Your task to perform on an android device: Turn on the flashlight Image 0: 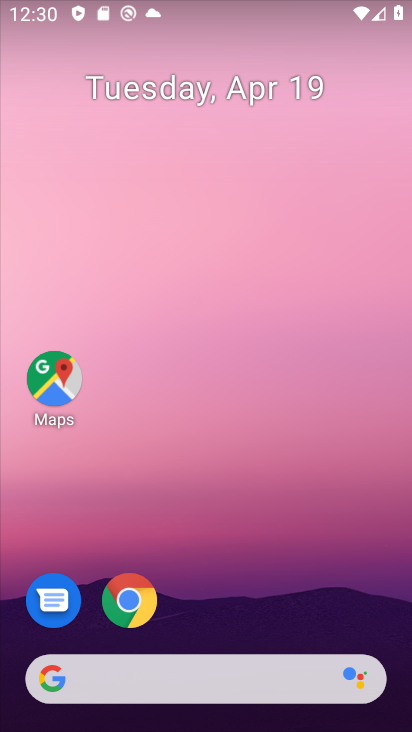
Step 0: drag from (221, 639) to (217, 44)
Your task to perform on an android device: Turn on the flashlight Image 1: 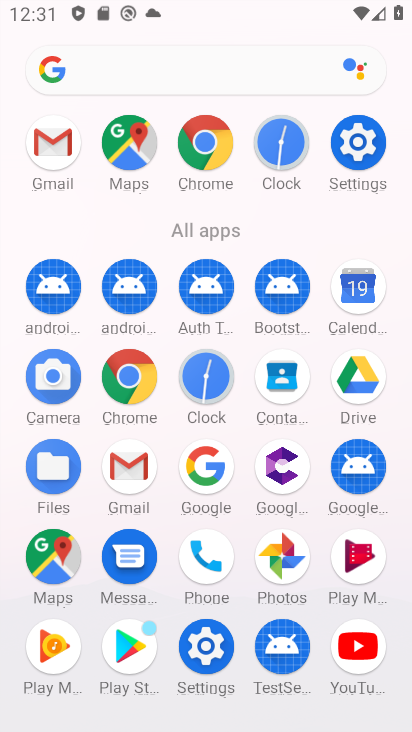
Step 1: click (358, 166)
Your task to perform on an android device: Turn on the flashlight Image 2: 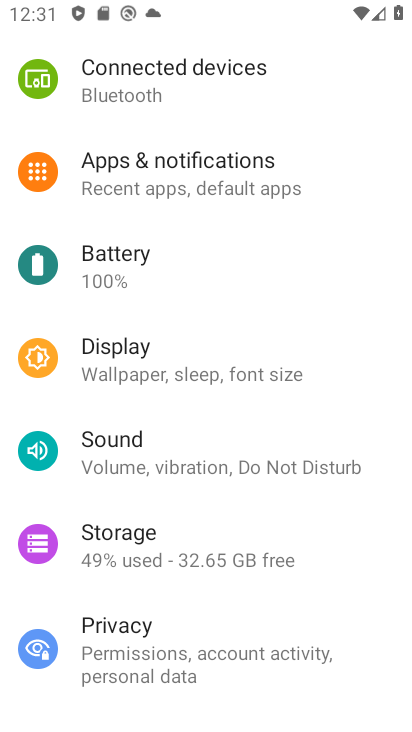
Step 2: drag from (286, 125) to (207, 401)
Your task to perform on an android device: Turn on the flashlight Image 3: 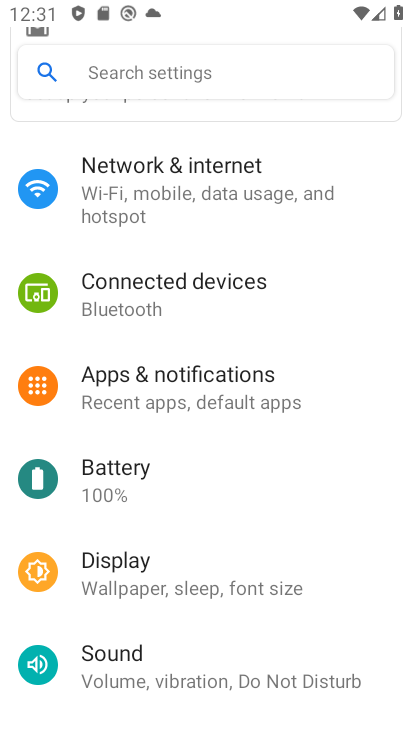
Step 3: click (216, 77)
Your task to perform on an android device: Turn on the flashlight Image 4: 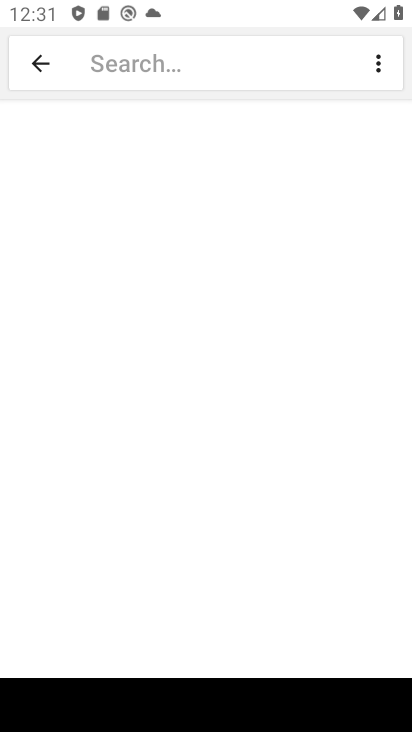
Step 4: type "flashlight"
Your task to perform on an android device: Turn on the flashlight Image 5: 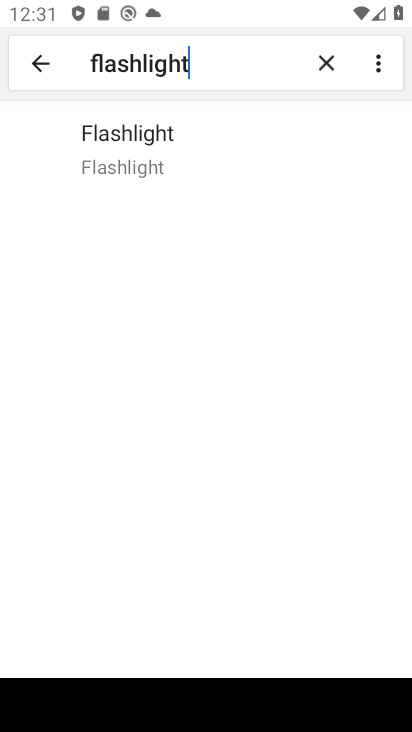
Step 5: click (112, 147)
Your task to perform on an android device: Turn on the flashlight Image 6: 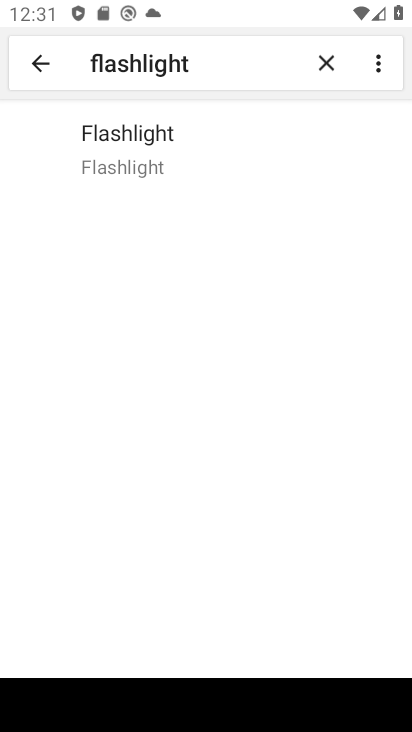
Step 6: task complete